Your task to perform on an android device: Open privacy settings Image 0: 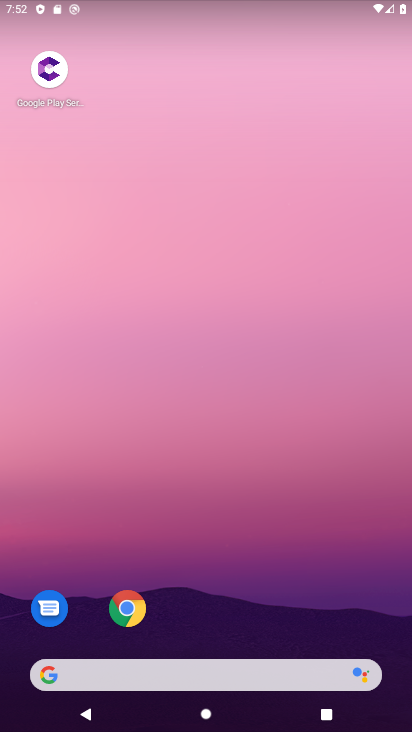
Step 0: drag from (248, 636) to (282, 7)
Your task to perform on an android device: Open privacy settings Image 1: 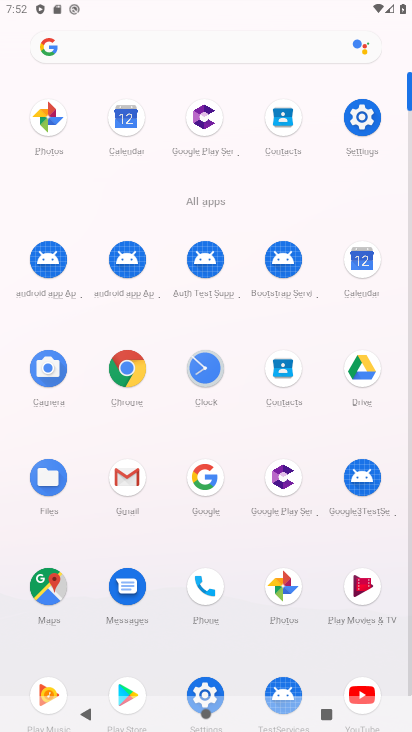
Step 1: click (359, 115)
Your task to perform on an android device: Open privacy settings Image 2: 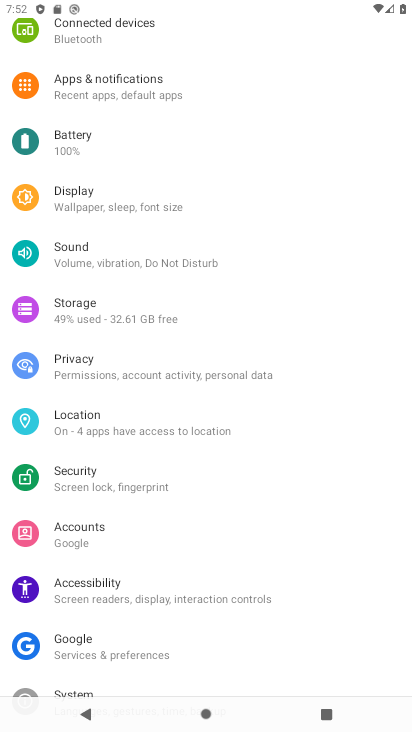
Step 2: click (85, 367)
Your task to perform on an android device: Open privacy settings Image 3: 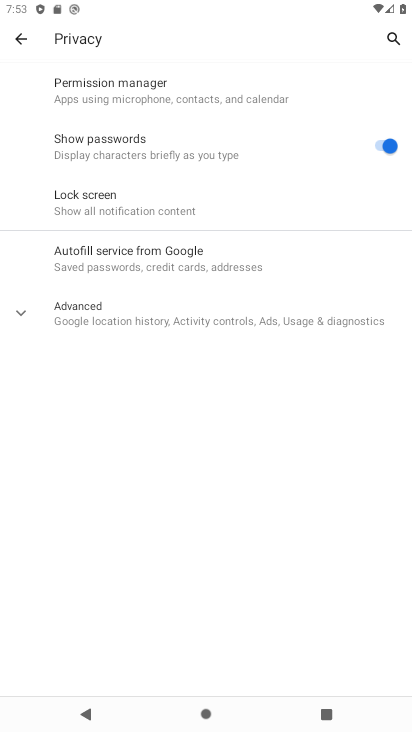
Step 3: task complete